Your task to perform on an android device: Clear all items from cart on ebay. Add "logitech g pro" to the cart on ebay Image 0: 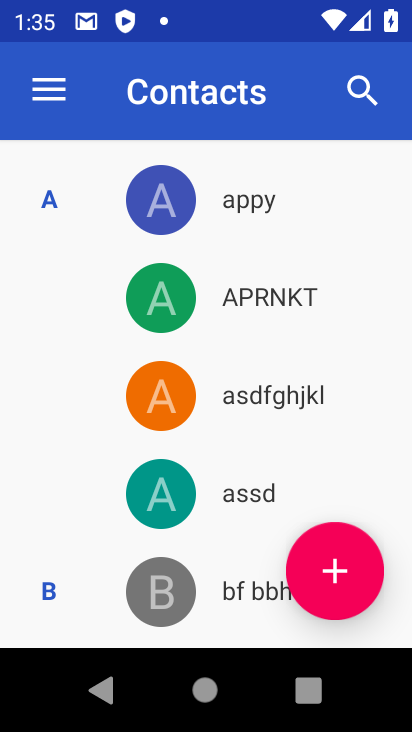
Step 0: press home button
Your task to perform on an android device: Clear all items from cart on ebay. Add "logitech g pro" to the cart on ebay Image 1: 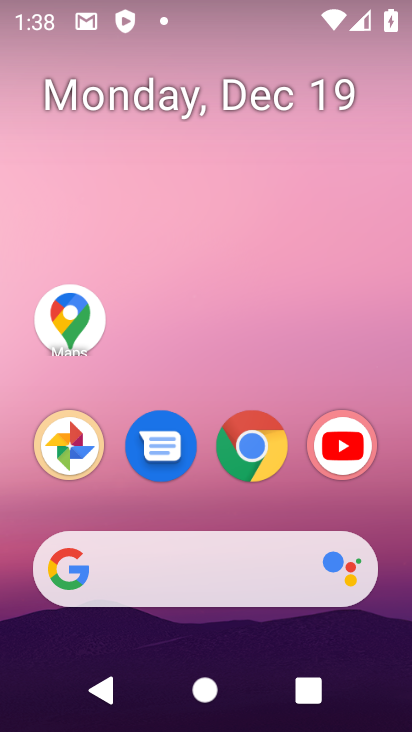
Step 1: click (271, 462)
Your task to perform on an android device: Clear all items from cart on ebay. Add "logitech g pro" to the cart on ebay Image 2: 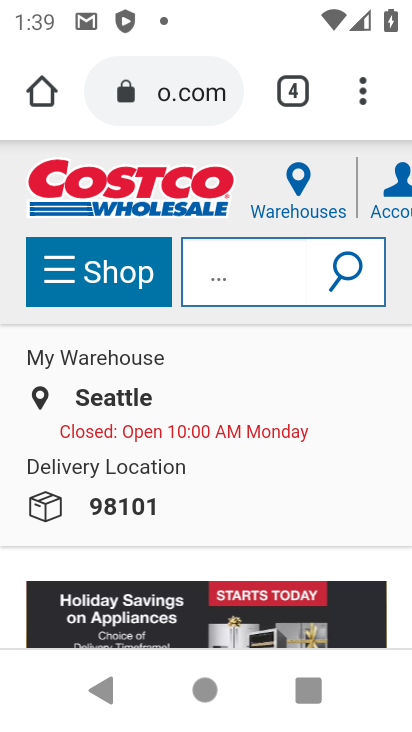
Step 2: task complete